Your task to perform on an android device: Open battery settings Image 0: 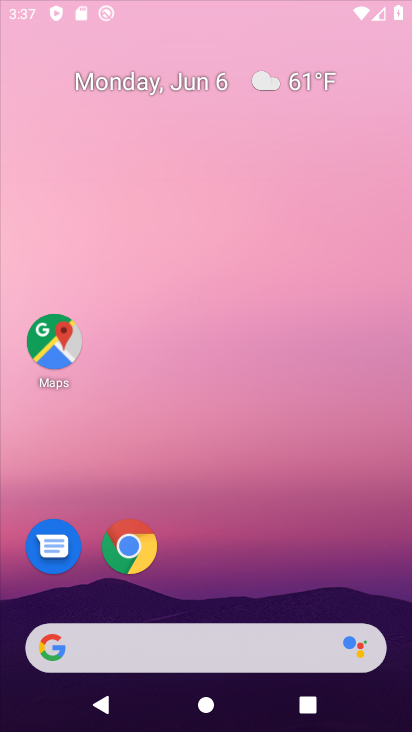
Step 0: drag from (232, 694) to (221, 131)
Your task to perform on an android device: Open battery settings Image 1: 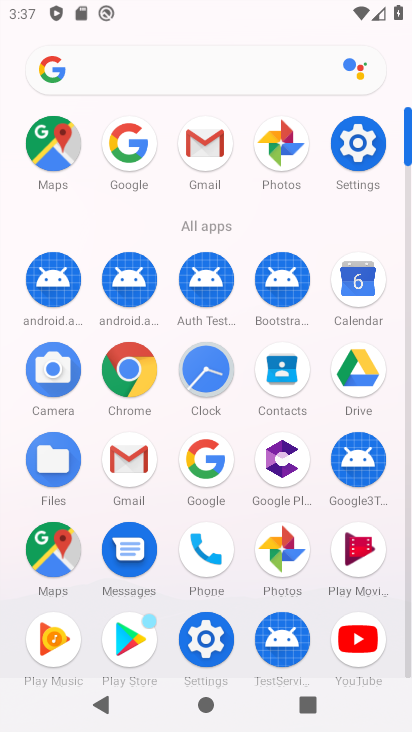
Step 1: click (208, 640)
Your task to perform on an android device: Open battery settings Image 2: 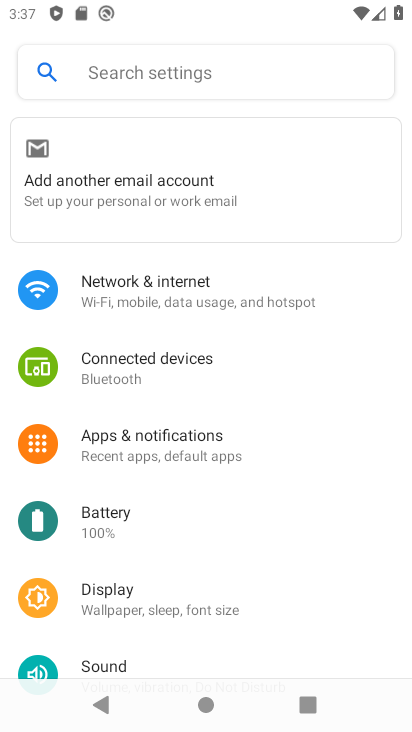
Step 2: click (107, 515)
Your task to perform on an android device: Open battery settings Image 3: 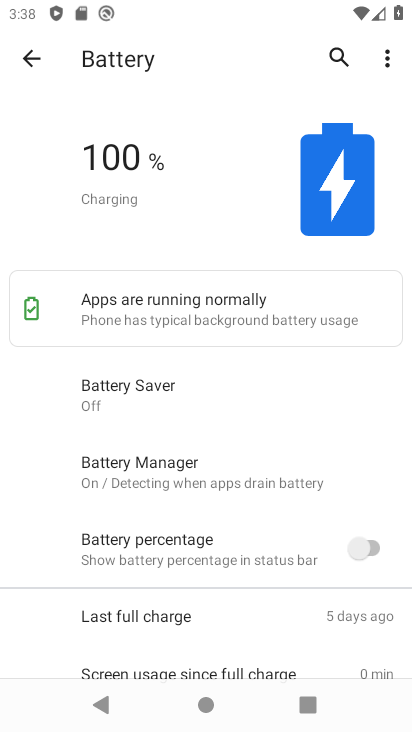
Step 3: task complete